Your task to perform on an android device: open sync settings in chrome Image 0: 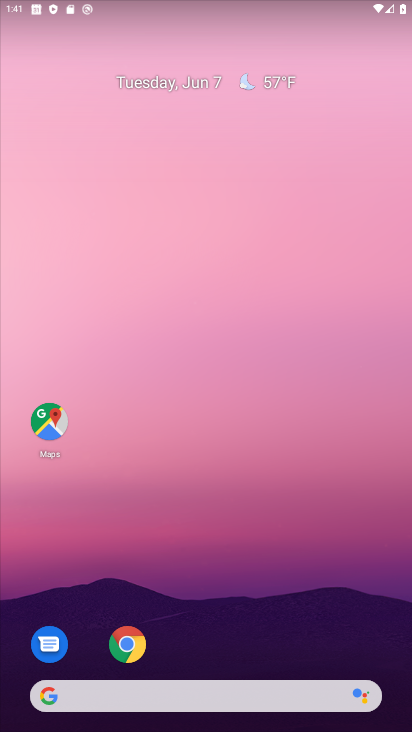
Step 0: click (190, 108)
Your task to perform on an android device: open sync settings in chrome Image 1: 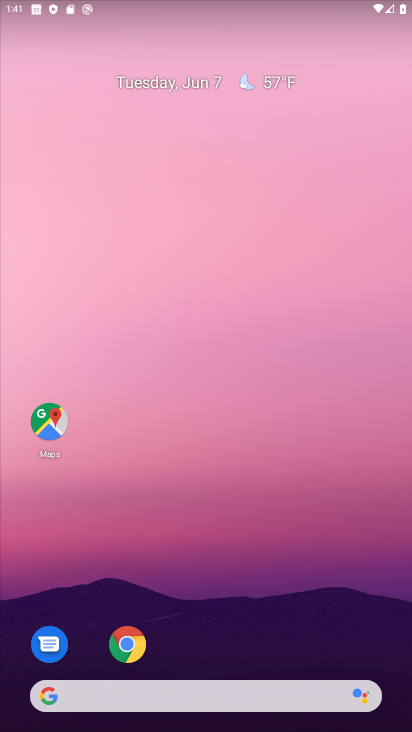
Step 1: drag from (258, 586) to (153, 3)
Your task to perform on an android device: open sync settings in chrome Image 2: 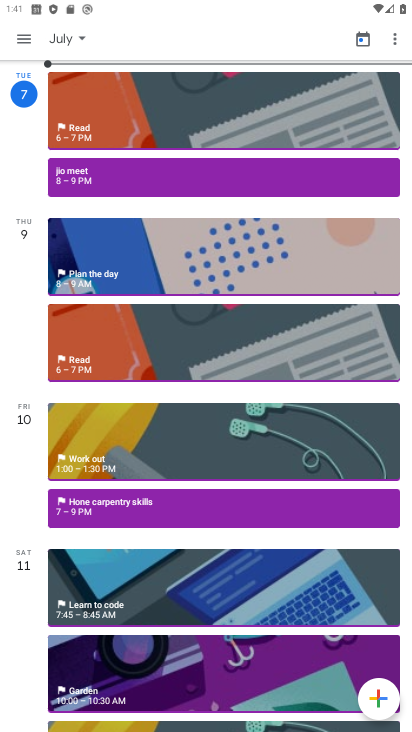
Step 2: drag from (272, 519) to (191, 133)
Your task to perform on an android device: open sync settings in chrome Image 3: 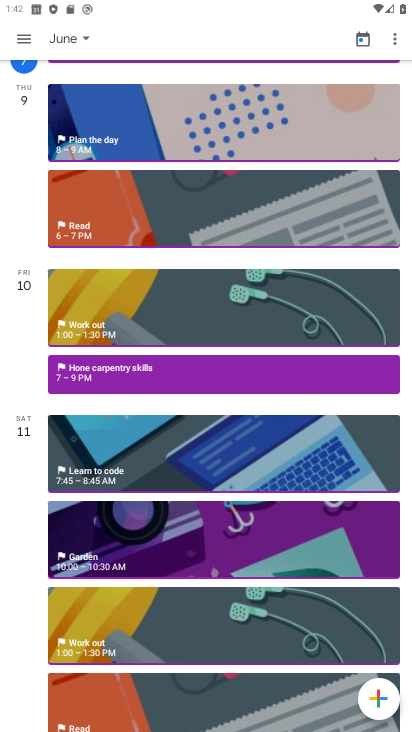
Step 3: drag from (230, 148) to (313, 405)
Your task to perform on an android device: open sync settings in chrome Image 4: 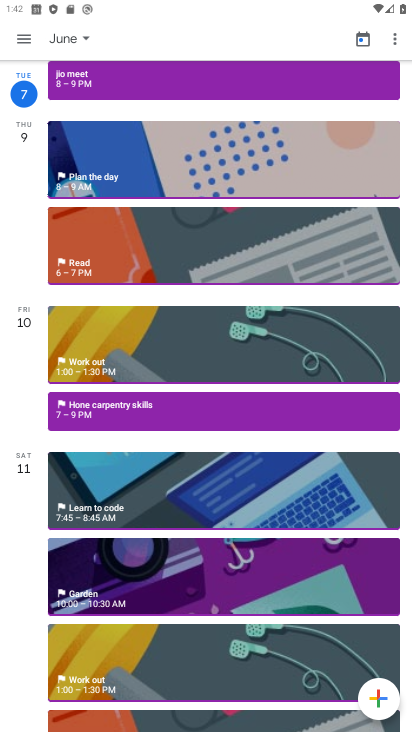
Step 4: drag from (252, 185) to (253, 399)
Your task to perform on an android device: open sync settings in chrome Image 5: 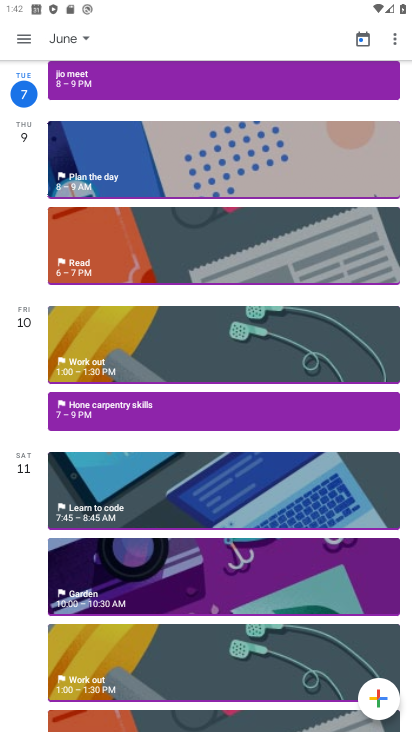
Step 5: drag from (156, 176) to (209, 459)
Your task to perform on an android device: open sync settings in chrome Image 6: 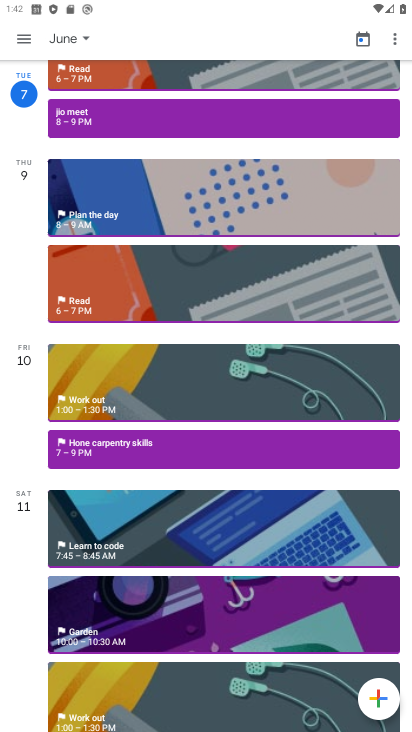
Step 6: drag from (133, 277) to (198, 528)
Your task to perform on an android device: open sync settings in chrome Image 7: 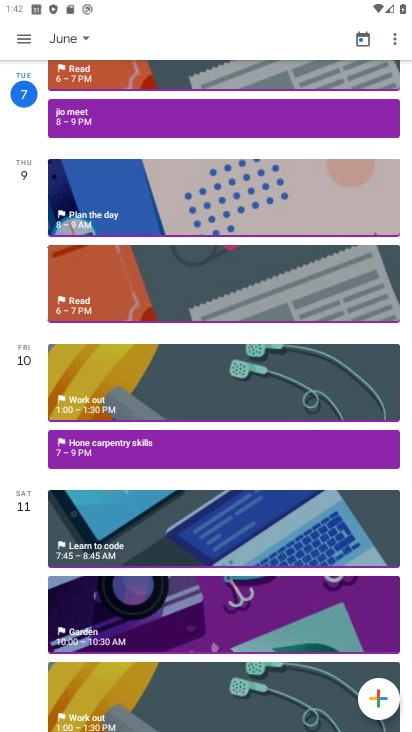
Step 7: drag from (150, 304) to (185, 501)
Your task to perform on an android device: open sync settings in chrome Image 8: 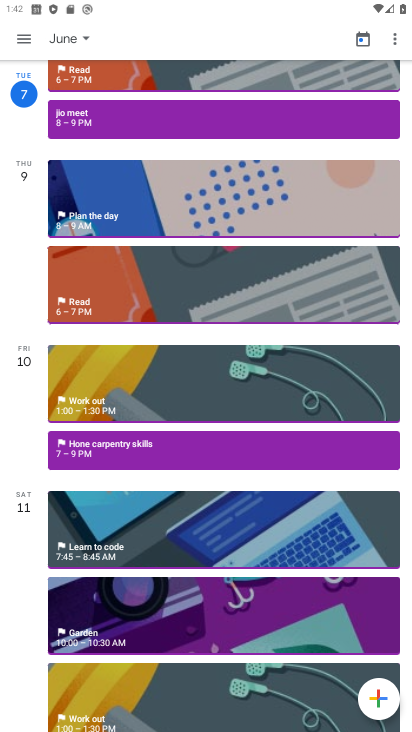
Step 8: drag from (152, 422) to (186, 575)
Your task to perform on an android device: open sync settings in chrome Image 9: 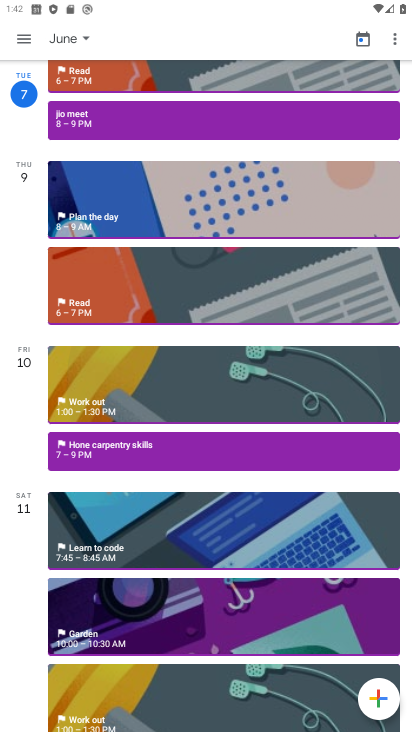
Step 9: drag from (147, 479) to (192, 587)
Your task to perform on an android device: open sync settings in chrome Image 10: 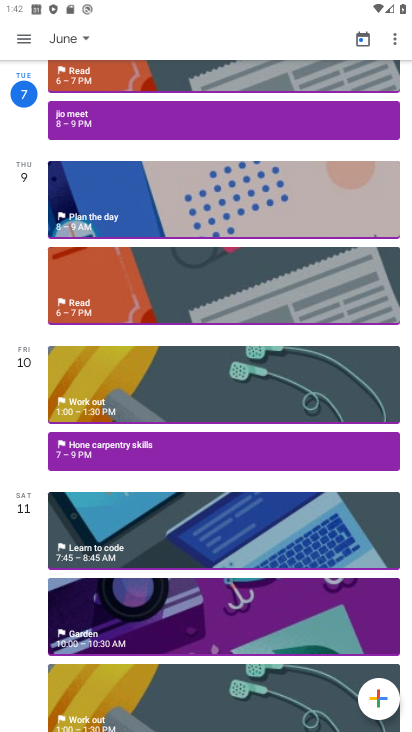
Step 10: drag from (153, 231) to (132, 492)
Your task to perform on an android device: open sync settings in chrome Image 11: 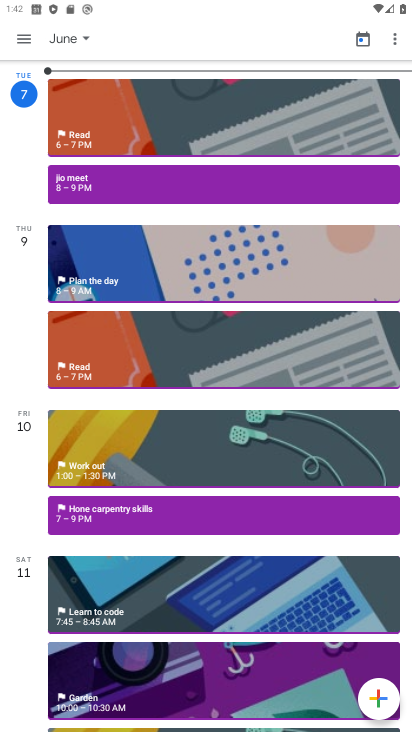
Step 11: press back button
Your task to perform on an android device: open sync settings in chrome Image 12: 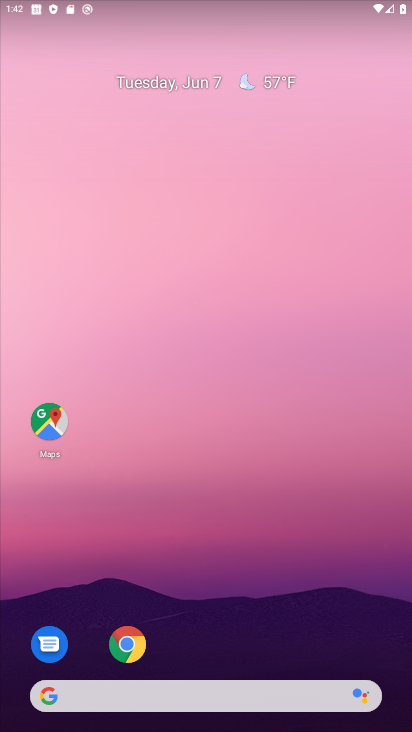
Step 12: drag from (263, 703) to (151, 153)
Your task to perform on an android device: open sync settings in chrome Image 13: 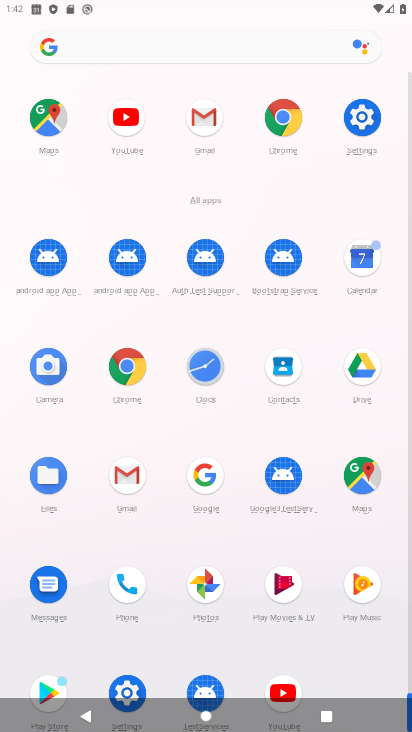
Step 13: click (268, 111)
Your task to perform on an android device: open sync settings in chrome Image 14: 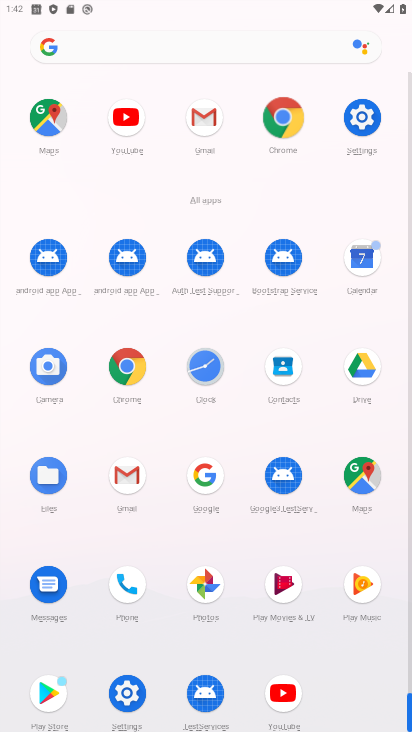
Step 14: click (277, 115)
Your task to perform on an android device: open sync settings in chrome Image 15: 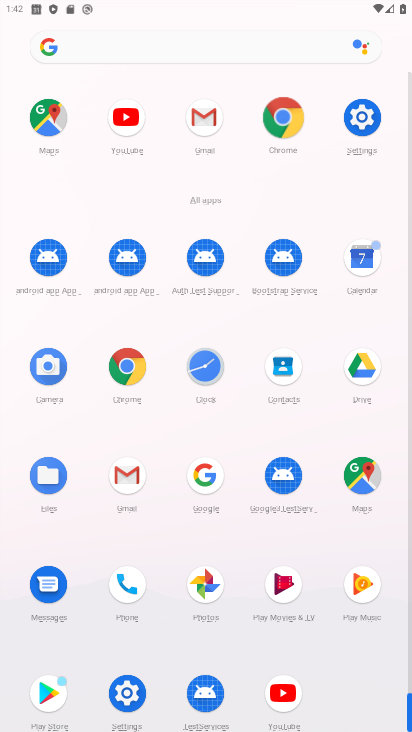
Step 15: click (277, 115)
Your task to perform on an android device: open sync settings in chrome Image 16: 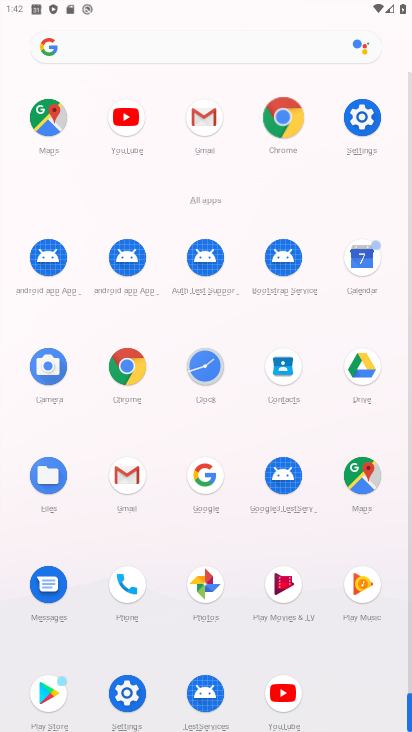
Step 16: click (278, 115)
Your task to perform on an android device: open sync settings in chrome Image 17: 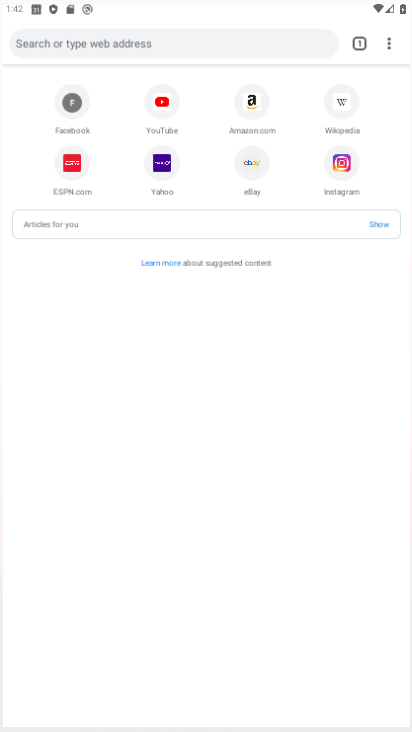
Step 17: click (283, 118)
Your task to perform on an android device: open sync settings in chrome Image 18: 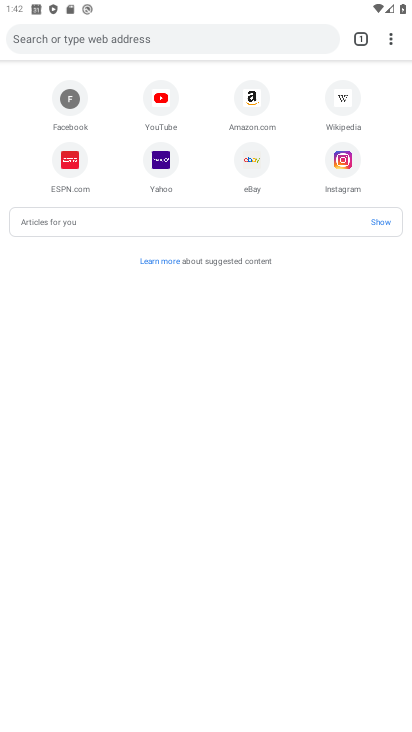
Step 18: click (283, 118)
Your task to perform on an android device: open sync settings in chrome Image 19: 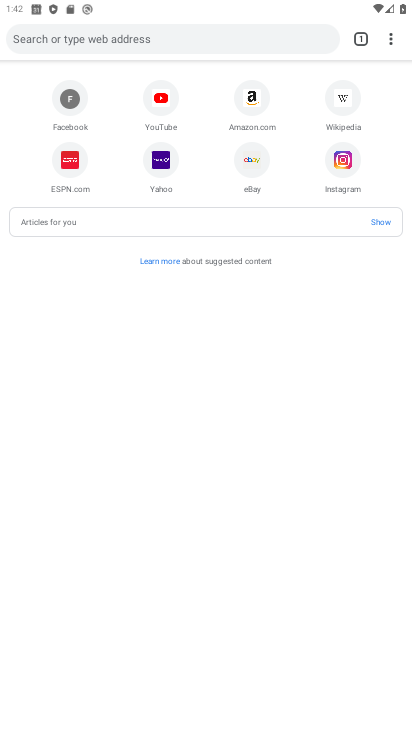
Step 19: click (283, 118)
Your task to perform on an android device: open sync settings in chrome Image 20: 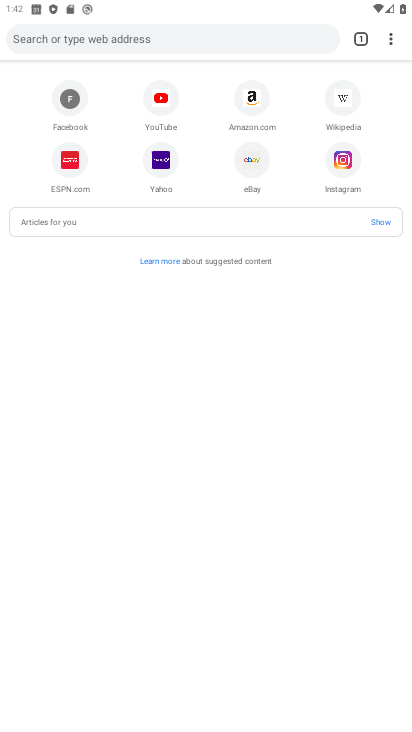
Step 20: drag from (391, 44) to (239, 333)
Your task to perform on an android device: open sync settings in chrome Image 21: 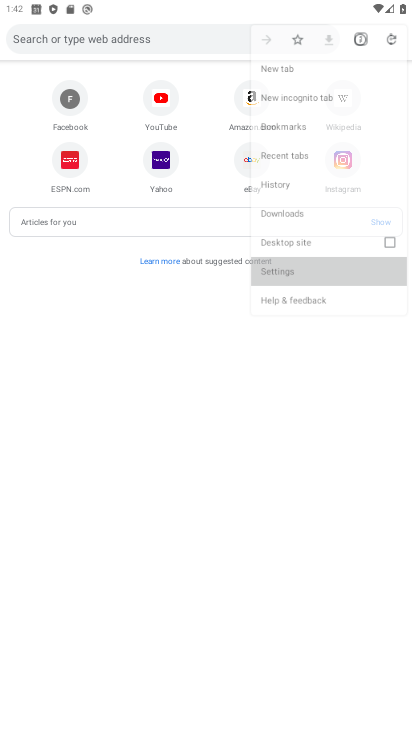
Step 21: click (240, 334)
Your task to perform on an android device: open sync settings in chrome Image 22: 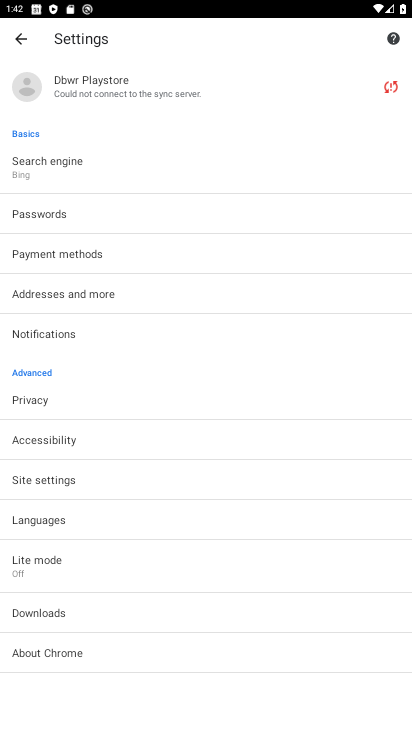
Step 22: click (42, 483)
Your task to perform on an android device: open sync settings in chrome Image 23: 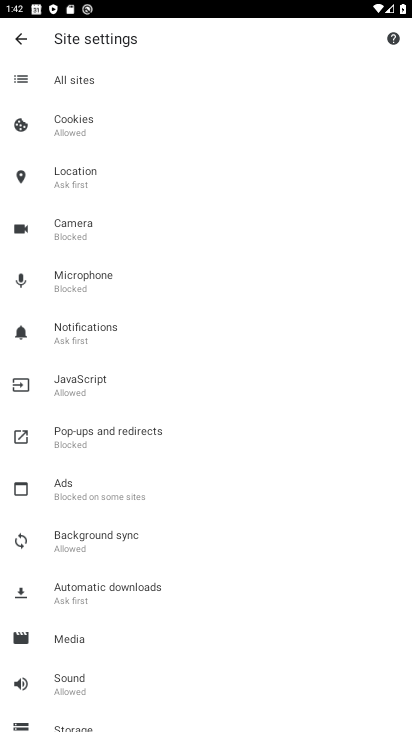
Step 23: click (75, 545)
Your task to perform on an android device: open sync settings in chrome Image 24: 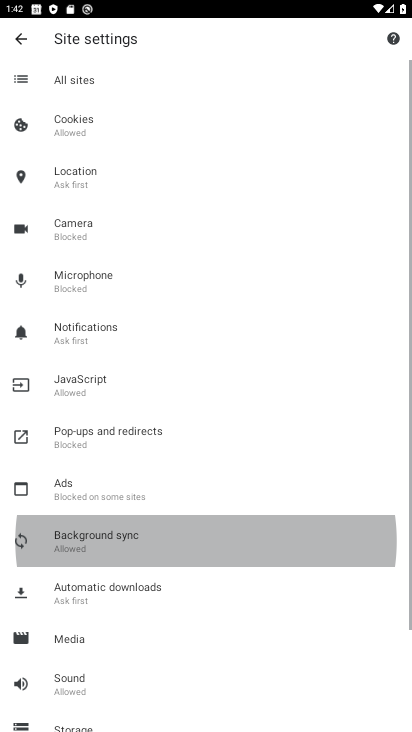
Step 24: click (76, 542)
Your task to perform on an android device: open sync settings in chrome Image 25: 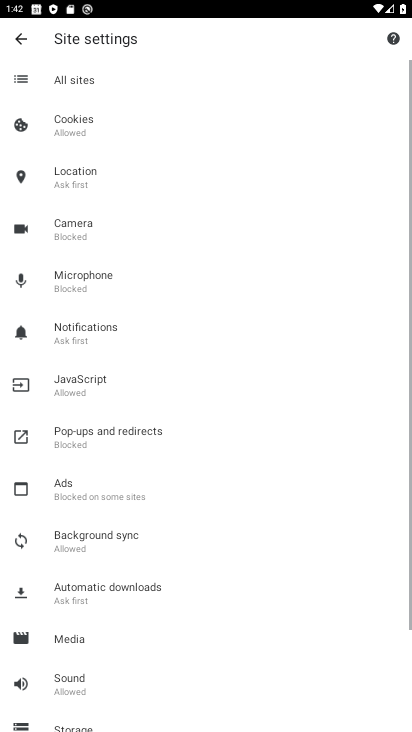
Step 25: click (76, 542)
Your task to perform on an android device: open sync settings in chrome Image 26: 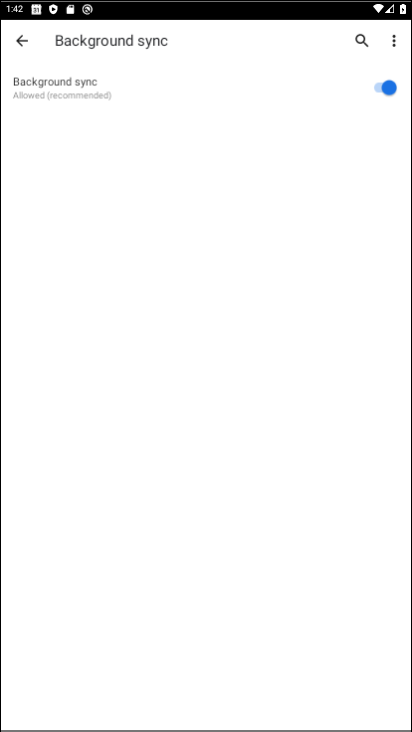
Step 26: click (76, 542)
Your task to perform on an android device: open sync settings in chrome Image 27: 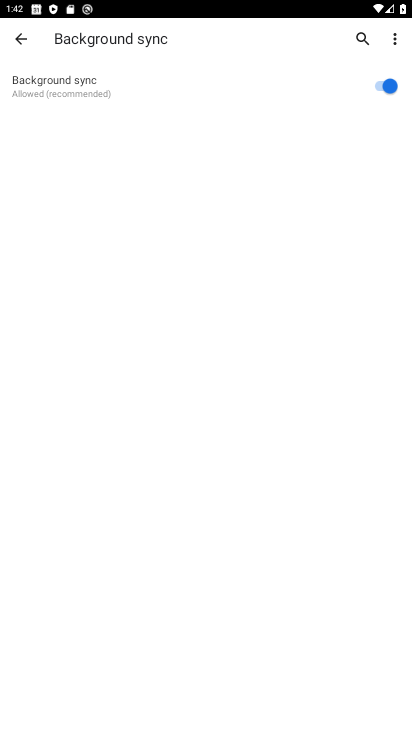
Step 27: task complete